Your task to perform on an android device: Open Google Chrome and open the bookmarks view Image 0: 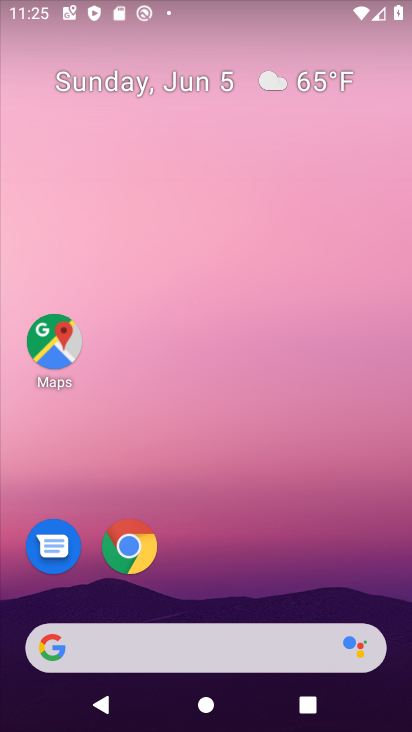
Step 0: click (118, 557)
Your task to perform on an android device: Open Google Chrome and open the bookmarks view Image 1: 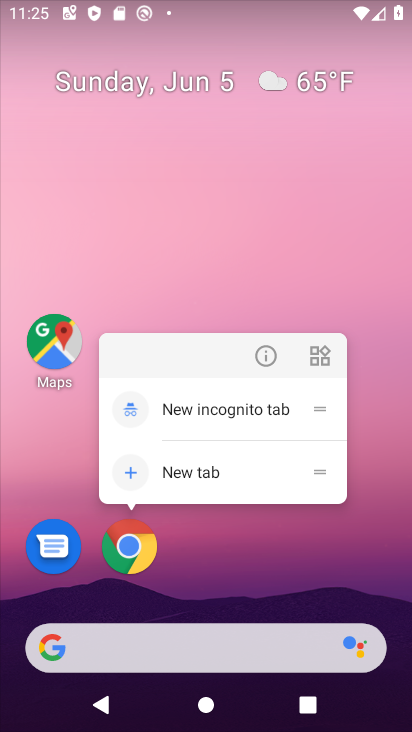
Step 1: click (133, 541)
Your task to perform on an android device: Open Google Chrome and open the bookmarks view Image 2: 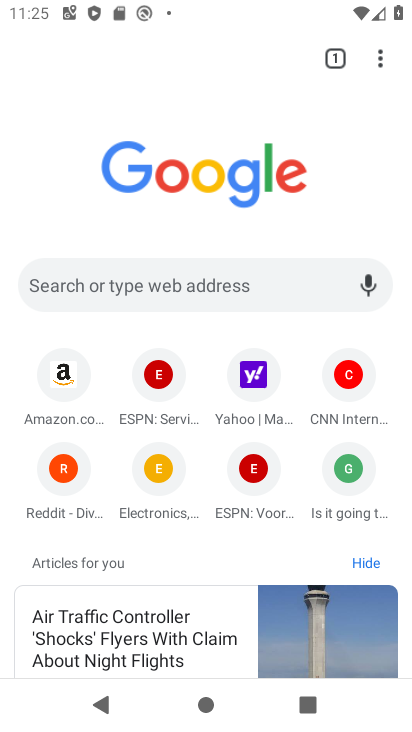
Step 2: click (383, 56)
Your task to perform on an android device: Open Google Chrome and open the bookmarks view Image 3: 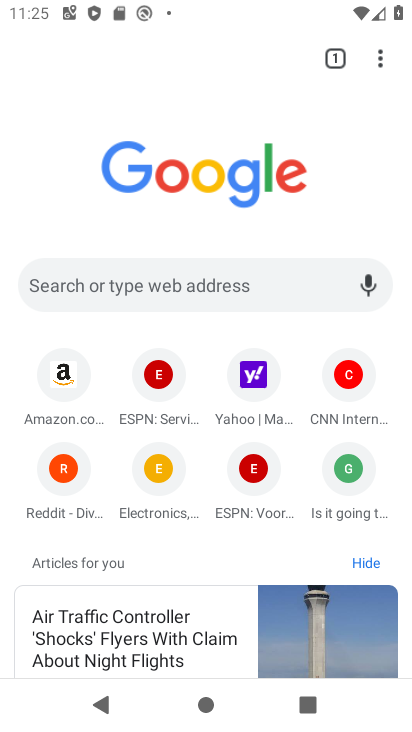
Step 3: click (372, 54)
Your task to perform on an android device: Open Google Chrome and open the bookmarks view Image 4: 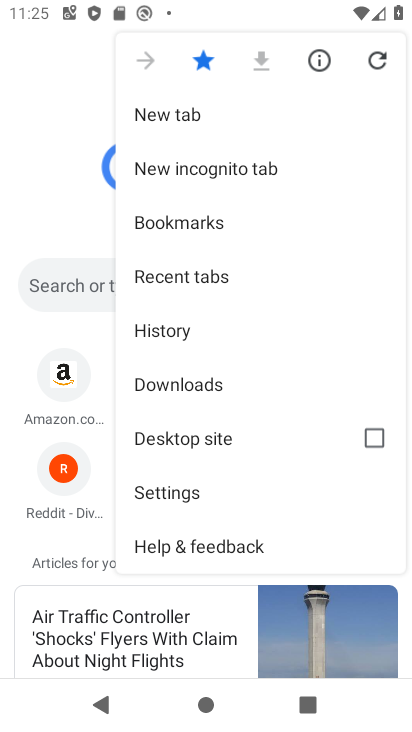
Step 4: click (185, 490)
Your task to perform on an android device: Open Google Chrome and open the bookmarks view Image 5: 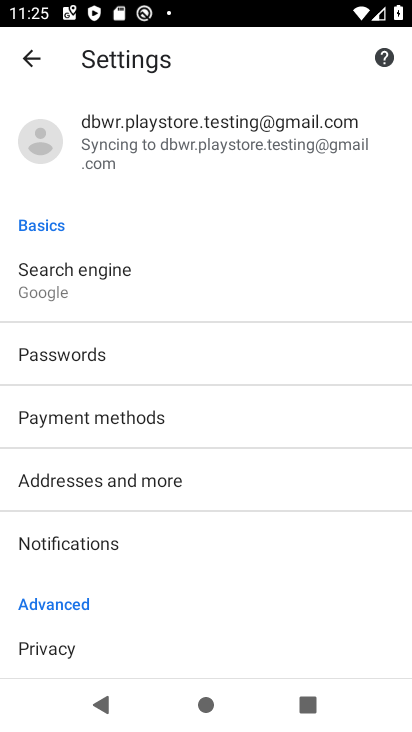
Step 5: press back button
Your task to perform on an android device: Open Google Chrome and open the bookmarks view Image 6: 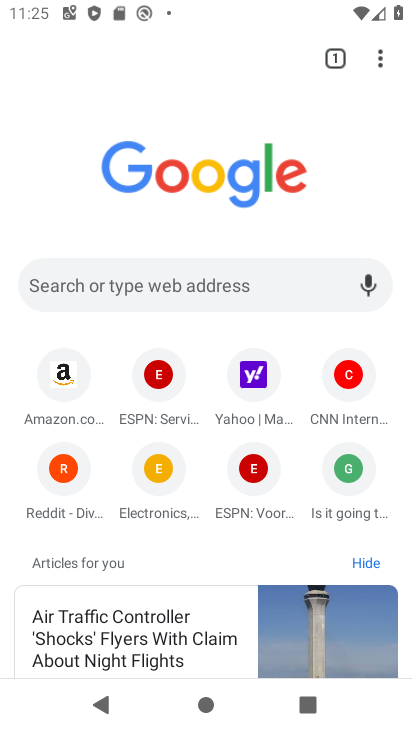
Step 6: click (386, 52)
Your task to perform on an android device: Open Google Chrome and open the bookmarks view Image 7: 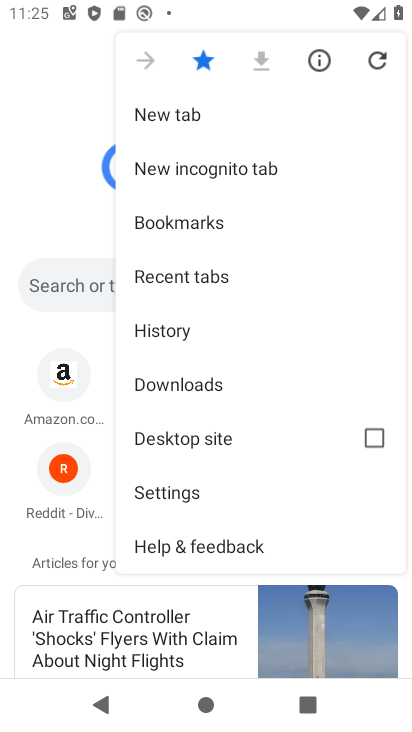
Step 7: click (165, 234)
Your task to perform on an android device: Open Google Chrome and open the bookmarks view Image 8: 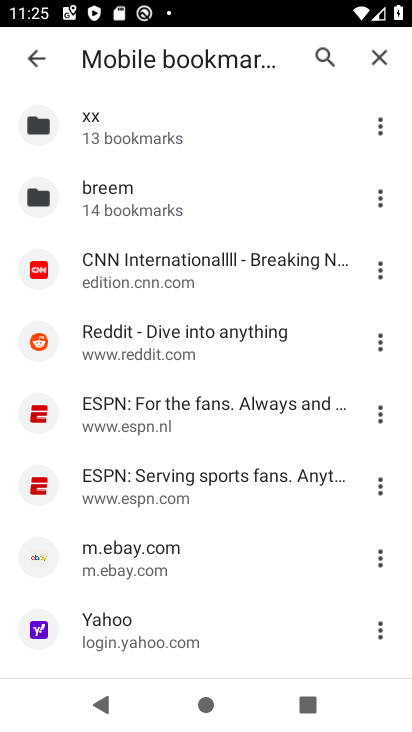
Step 8: task complete